Your task to perform on an android device: add a contact Image 0: 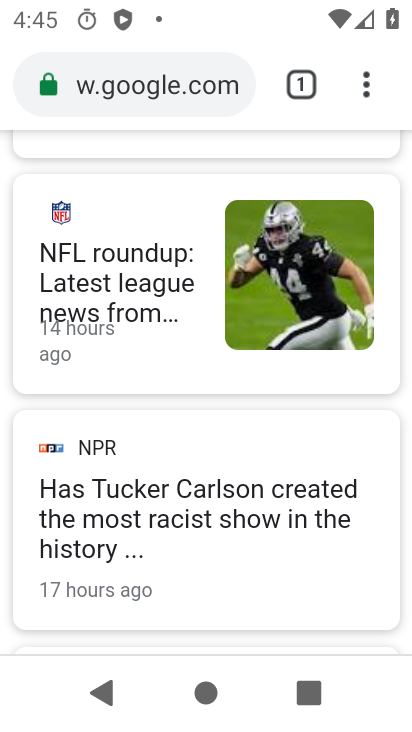
Step 0: press home button
Your task to perform on an android device: add a contact Image 1: 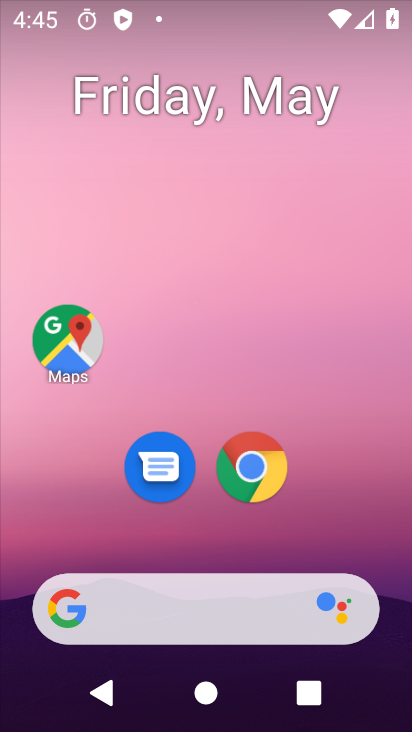
Step 1: drag from (331, 446) to (239, 82)
Your task to perform on an android device: add a contact Image 2: 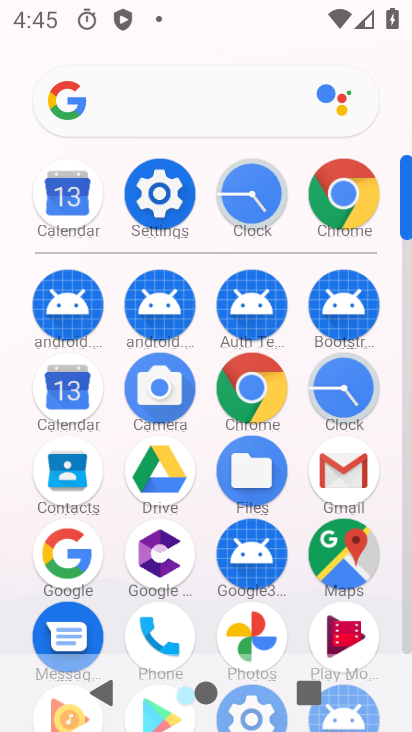
Step 2: click (86, 480)
Your task to perform on an android device: add a contact Image 3: 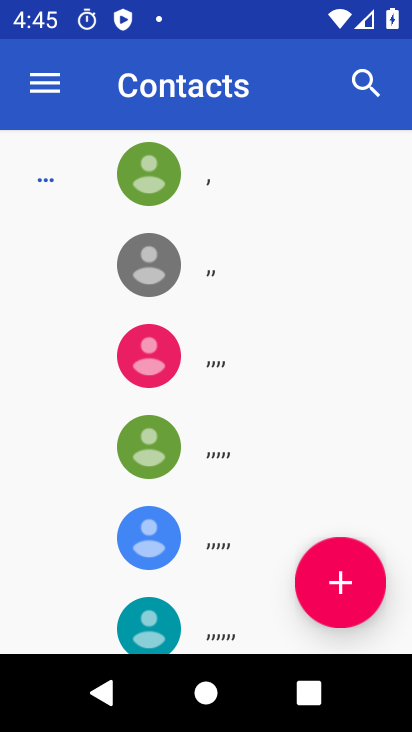
Step 3: click (333, 618)
Your task to perform on an android device: add a contact Image 4: 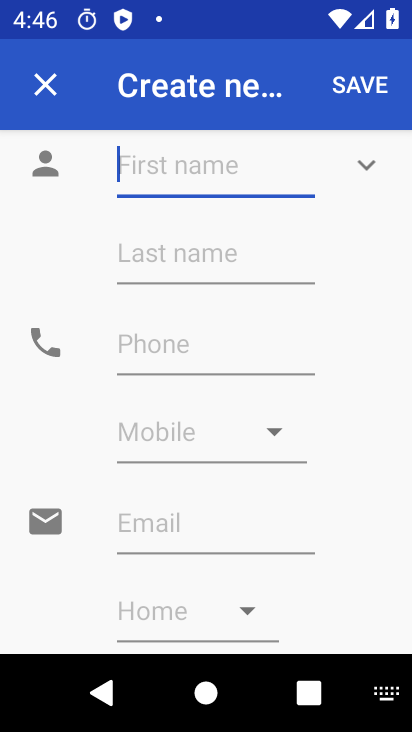
Step 4: type "aag"
Your task to perform on an android device: add a contact Image 5: 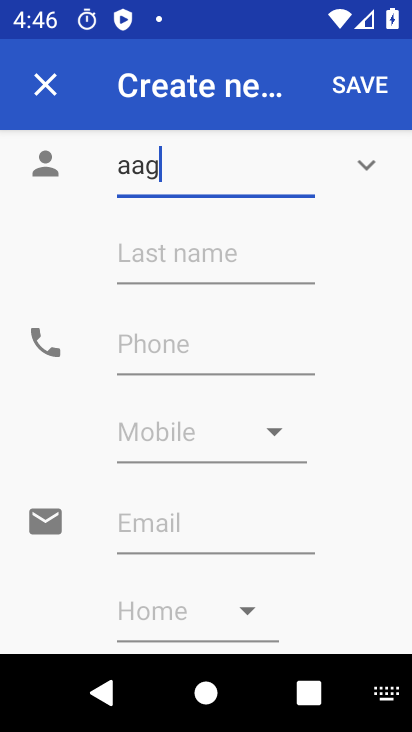
Step 5: click (366, 81)
Your task to perform on an android device: add a contact Image 6: 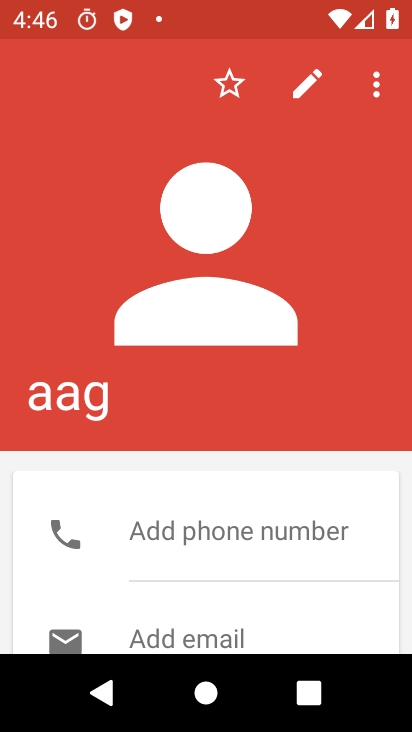
Step 6: task complete